Your task to perform on an android device: toggle pop-ups in chrome Image 0: 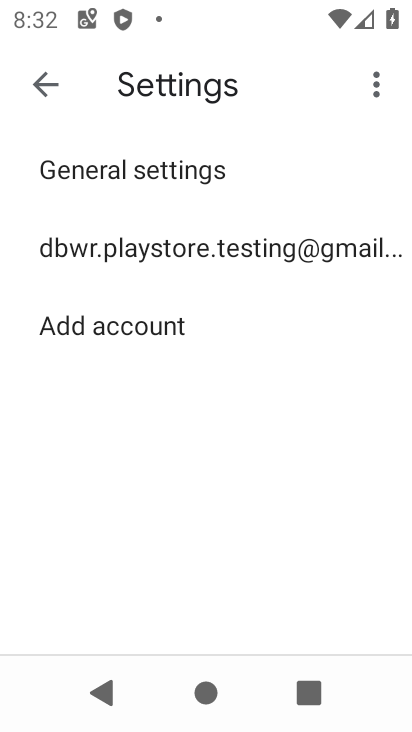
Step 0: press home button
Your task to perform on an android device: toggle pop-ups in chrome Image 1: 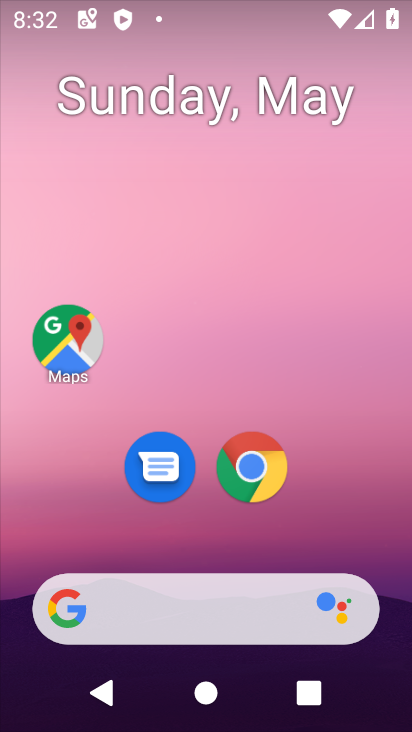
Step 1: click (255, 472)
Your task to perform on an android device: toggle pop-ups in chrome Image 2: 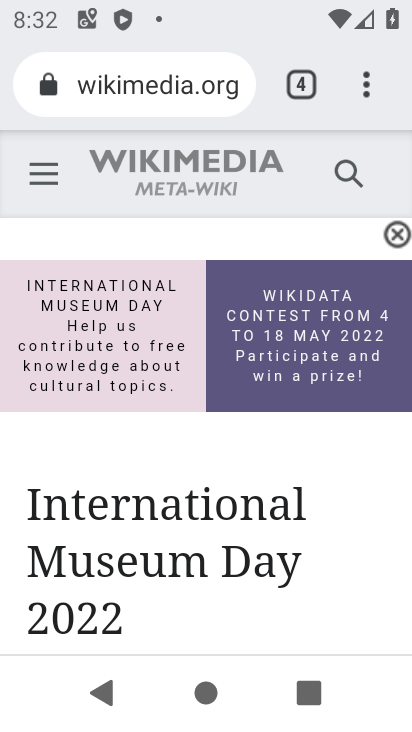
Step 2: click (399, 58)
Your task to perform on an android device: toggle pop-ups in chrome Image 3: 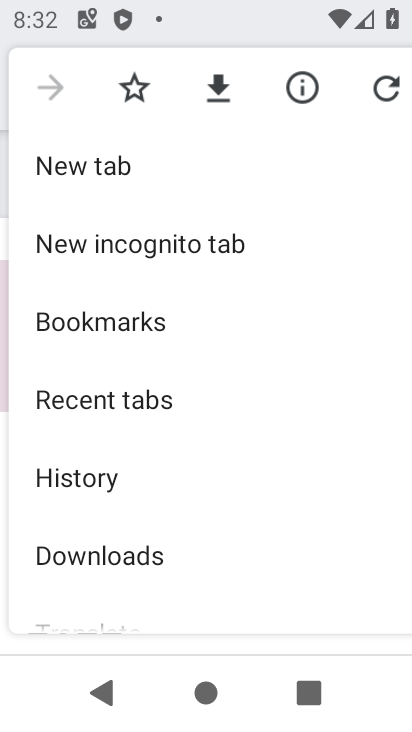
Step 3: drag from (96, 573) to (190, 153)
Your task to perform on an android device: toggle pop-ups in chrome Image 4: 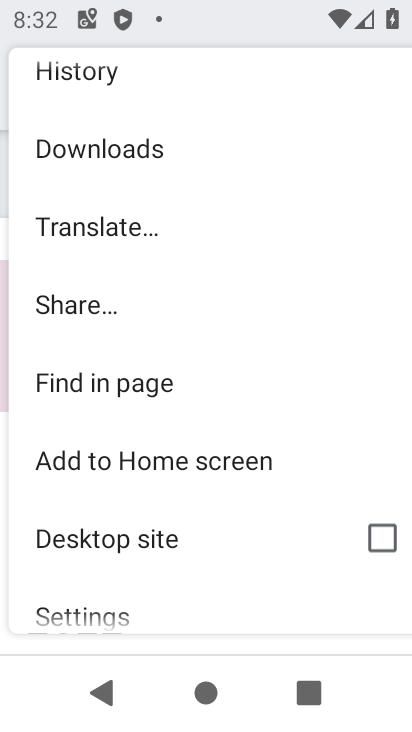
Step 4: click (126, 611)
Your task to perform on an android device: toggle pop-ups in chrome Image 5: 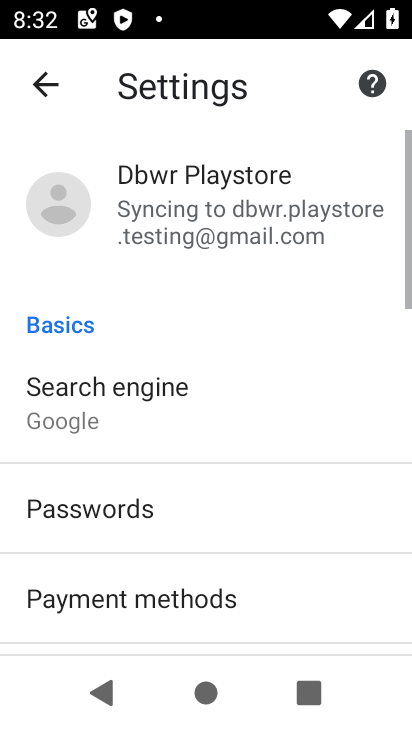
Step 5: drag from (126, 611) to (202, 196)
Your task to perform on an android device: toggle pop-ups in chrome Image 6: 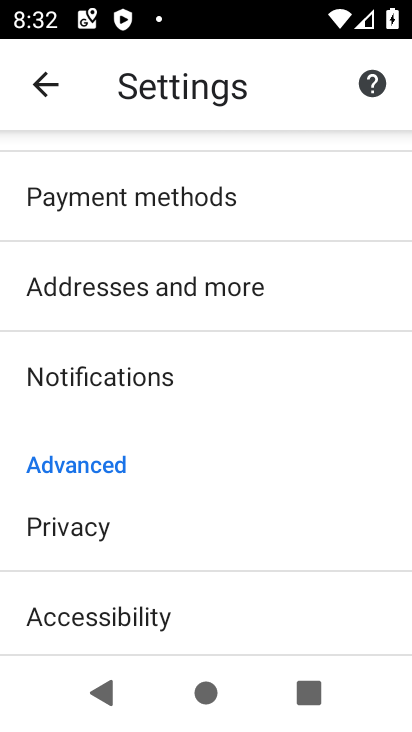
Step 6: drag from (174, 594) to (237, 142)
Your task to perform on an android device: toggle pop-ups in chrome Image 7: 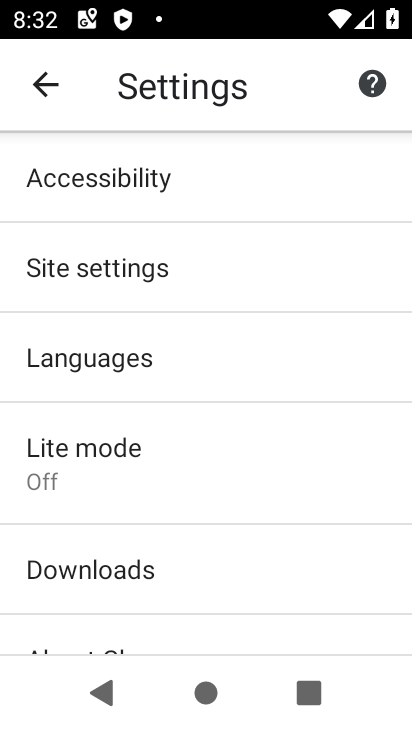
Step 7: drag from (162, 559) to (215, 230)
Your task to perform on an android device: toggle pop-ups in chrome Image 8: 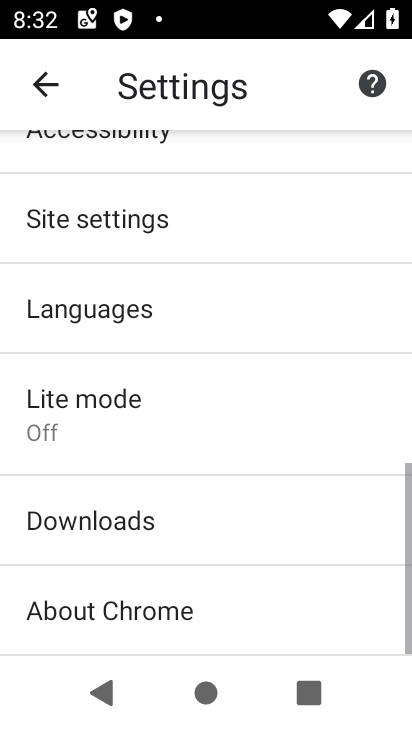
Step 8: click (215, 230)
Your task to perform on an android device: toggle pop-ups in chrome Image 9: 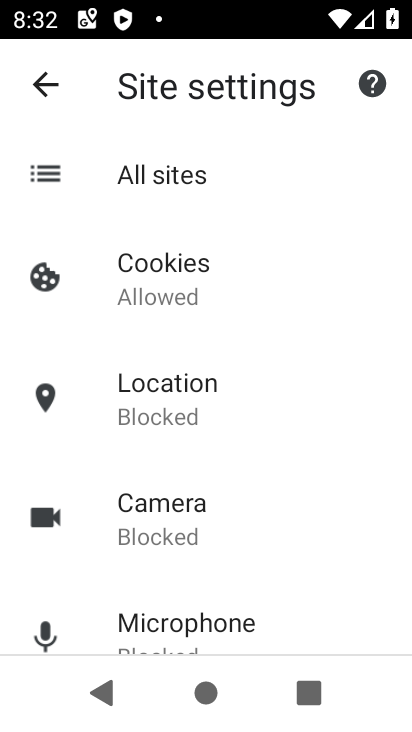
Step 9: drag from (157, 585) to (186, 254)
Your task to perform on an android device: toggle pop-ups in chrome Image 10: 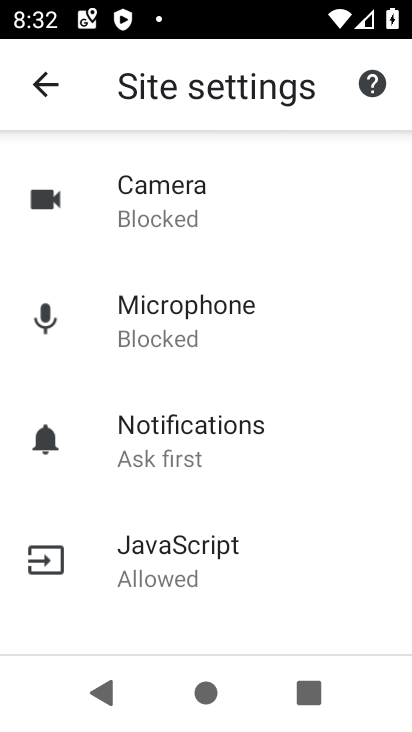
Step 10: drag from (166, 581) to (261, 129)
Your task to perform on an android device: toggle pop-ups in chrome Image 11: 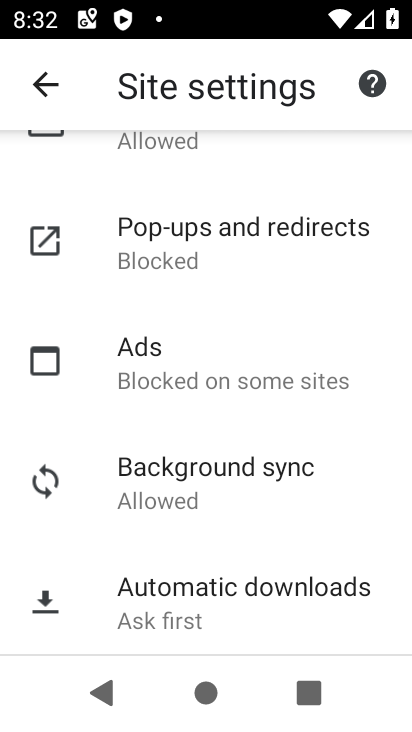
Step 11: click (251, 227)
Your task to perform on an android device: toggle pop-ups in chrome Image 12: 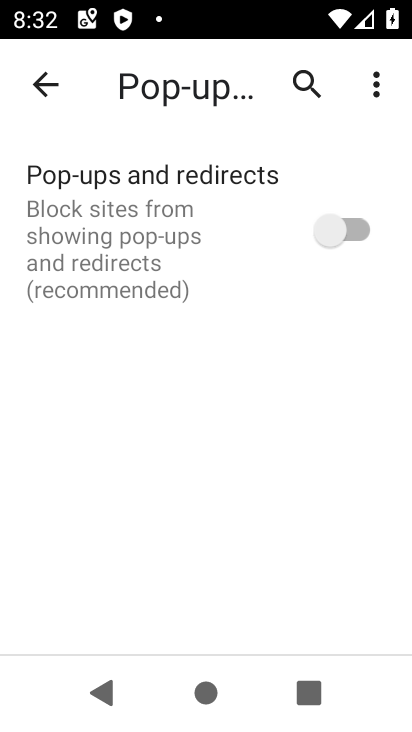
Step 12: click (347, 240)
Your task to perform on an android device: toggle pop-ups in chrome Image 13: 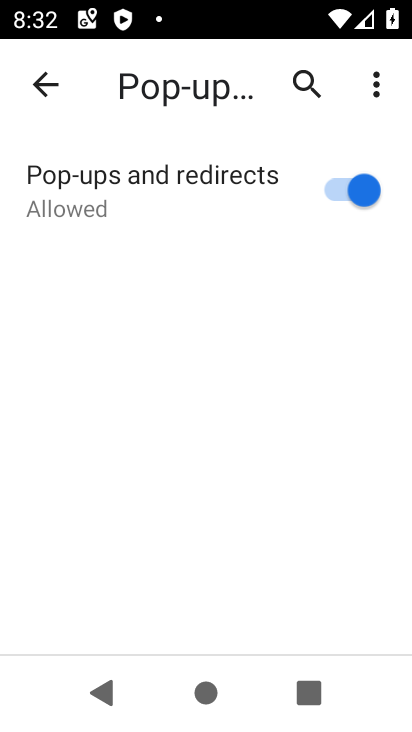
Step 13: task complete